Your task to perform on an android device: Go to display settings Image 0: 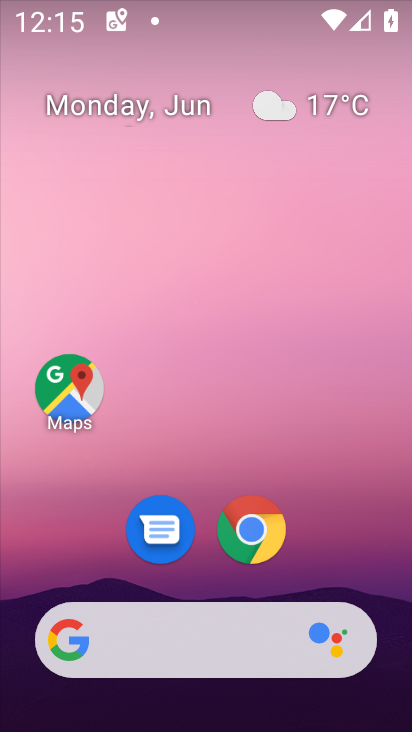
Step 0: drag from (332, 532) to (329, 3)
Your task to perform on an android device: Go to display settings Image 1: 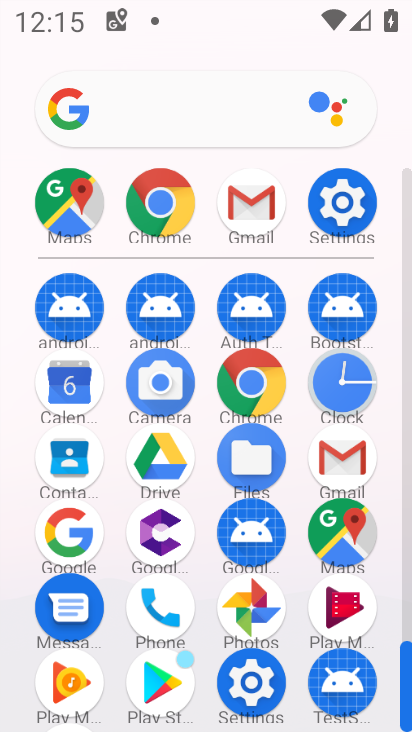
Step 1: click (348, 200)
Your task to perform on an android device: Go to display settings Image 2: 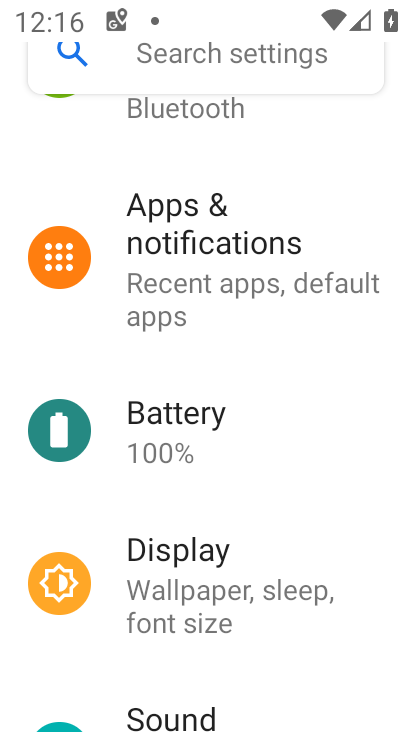
Step 2: drag from (244, 599) to (295, 166)
Your task to perform on an android device: Go to display settings Image 3: 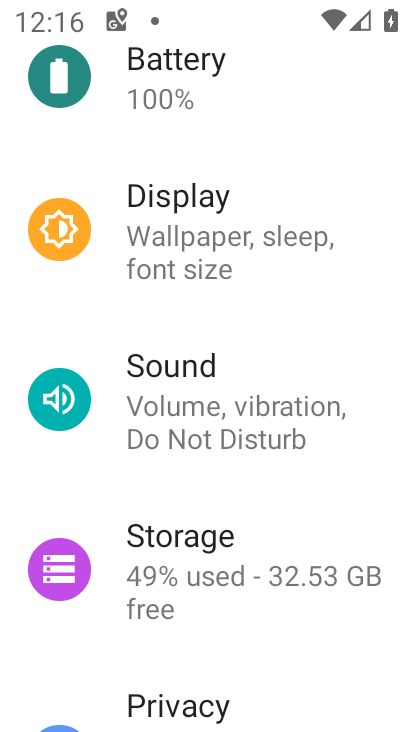
Step 3: drag from (233, 607) to (241, 503)
Your task to perform on an android device: Go to display settings Image 4: 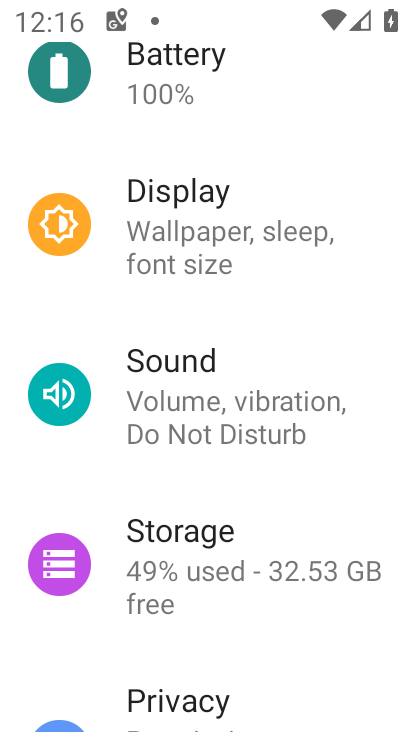
Step 4: click (187, 224)
Your task to perform on an android device: Go to display settings Image 5: 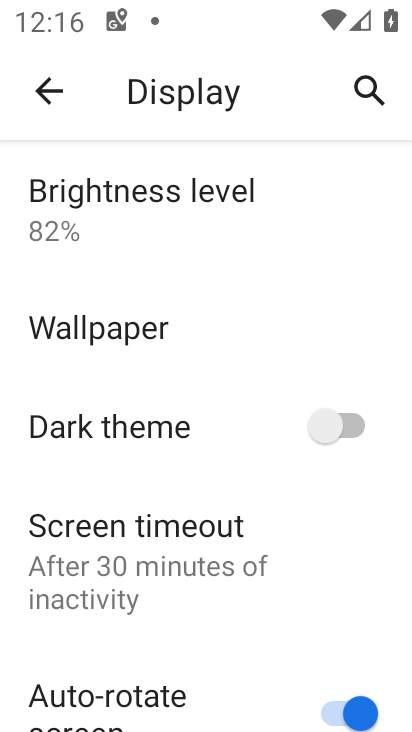
Step 5: task complete